Your task to perform on an android device: Open calendar and show me the second week of next month Image 0: 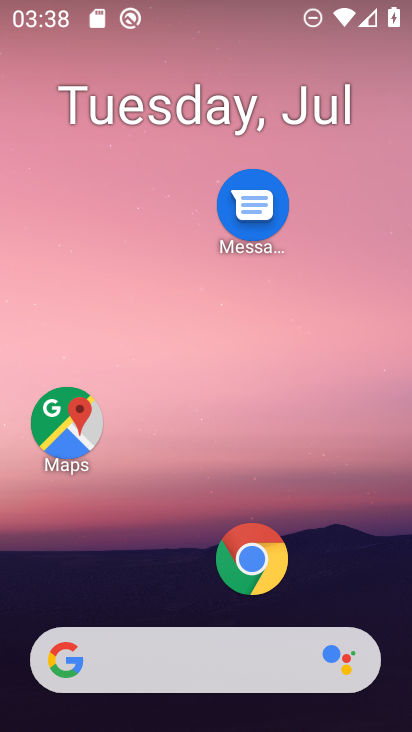
Step 0: drag from (169, 509) to (218, 113)
Your task to perform on an android device: Open calendar and show me the second week of next month Image 1: 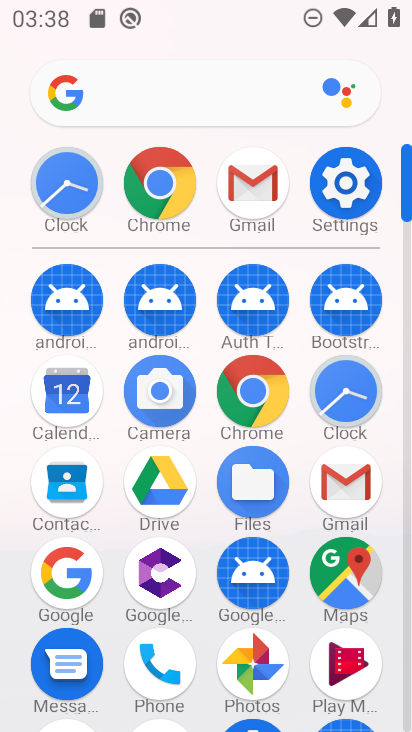
Step 1: click (58, 402)
Your task to perform on an android device: Open calendar and show me the second week of next month Image 2: 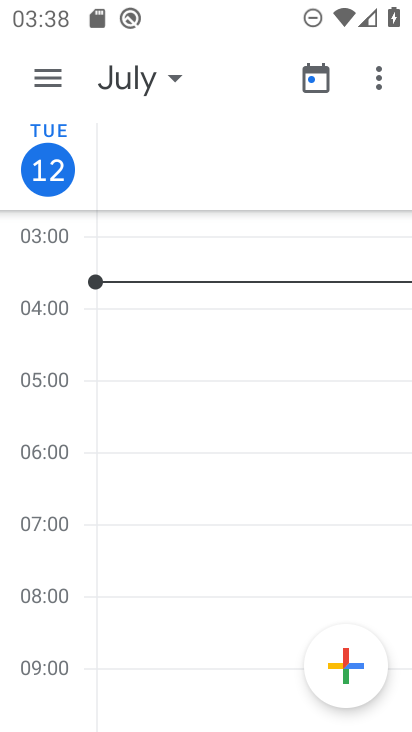
Step 2: click (189, 71)
Your task to perform on an android device: Open calendar and show me the second week of next month Image 3: 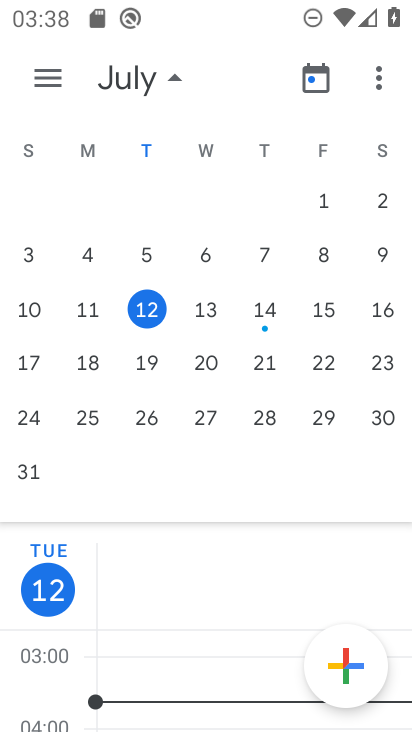
Step 3: drag from (359, 317) to (49, 333)
Your task to perform on an android device: Open calendar and show me the second week of next month Image 4: 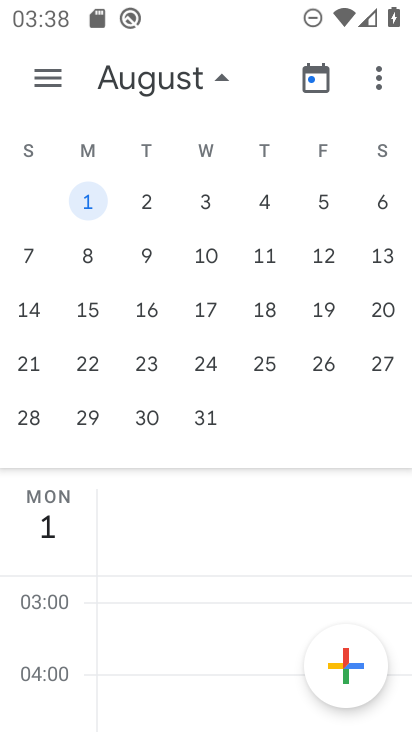
Step 4: click (82, 249)
Your task to perform on an android device: Open calendar and show me the second week of next month Image 5: 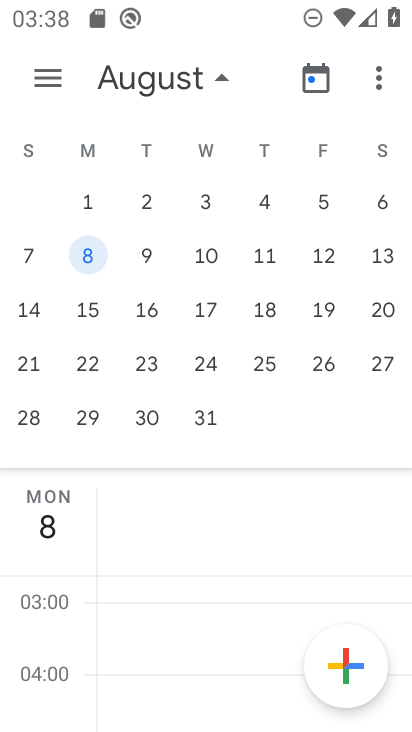
Step 5: task complete